Your task to perform on an android device: turn off picture-in-picture Image 0: 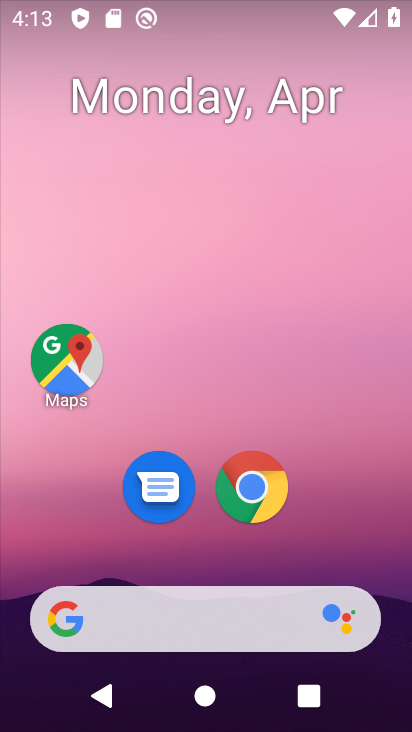
Step 0: drag from (365, 548) to (362, 85)
Your task to perform on an android device: turn off picture-in-picture Image 1: 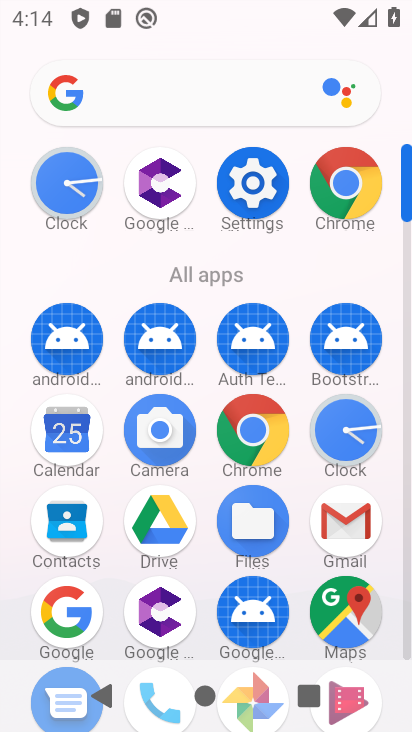
Step 1: click (254, 197)
Your task to perform on an android device: turn off picture-in-picture Image 2: 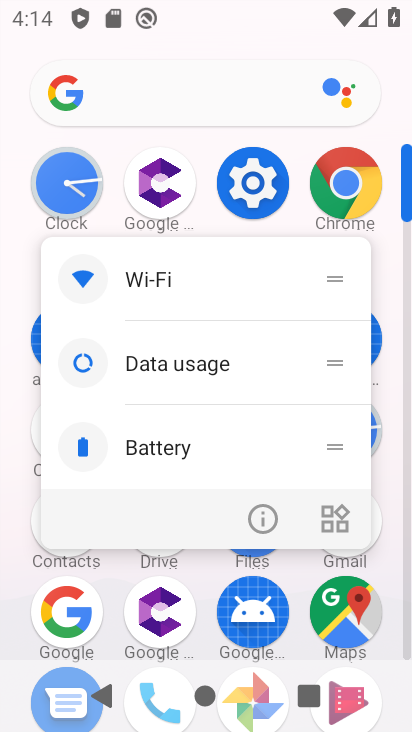
Step 2: click (235, 181)
Your task to perform on an android device: turn off picture-in-picture Image 3: 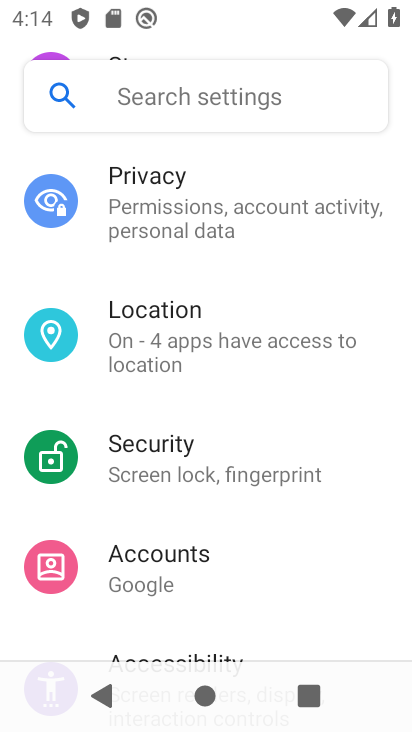
Step 3: drag from (358, 590) to (367, 411)
Your task to perform on an android device: turn off picture-in-picture Image 4: 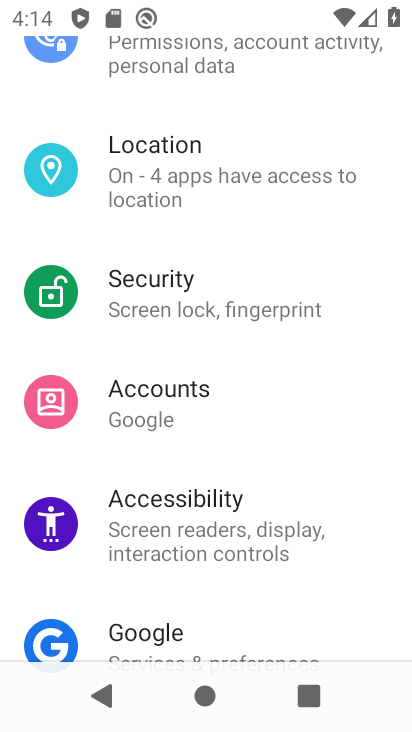
Step 4: drag from (359, 590) to (354, 385)
Your task to perform on an android device: turn off picture-in-picture Image 5: 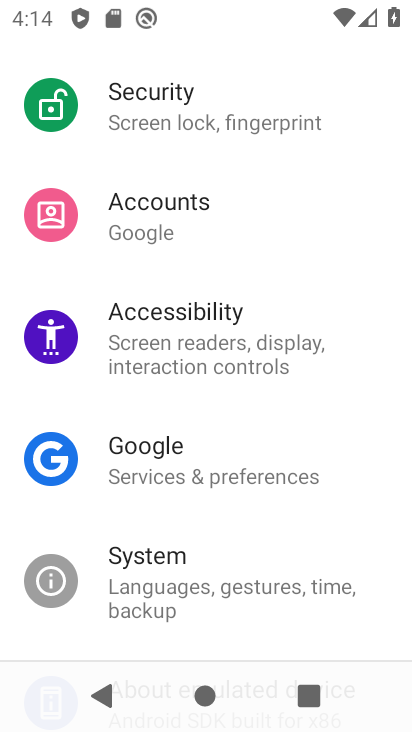
Step 5: drag from (355, 503) to (359, 390)
Your task to perform on an android device: turn off picture-in-picture Image 6: 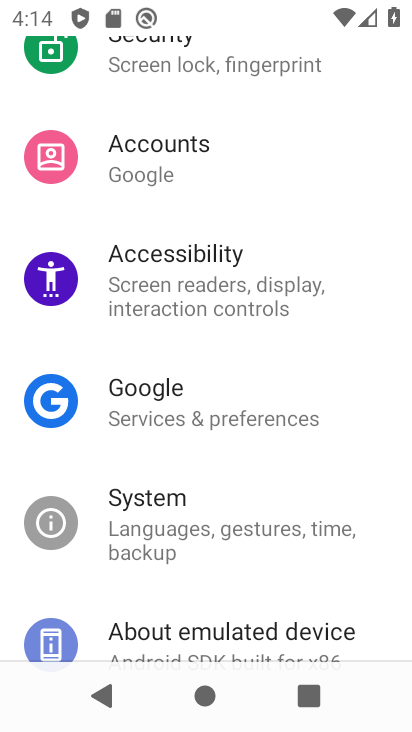
Step 6: drag from (379, 318) to (366, 467)
Your task to perform on an android device: turn off picture-in-picture Image 7: 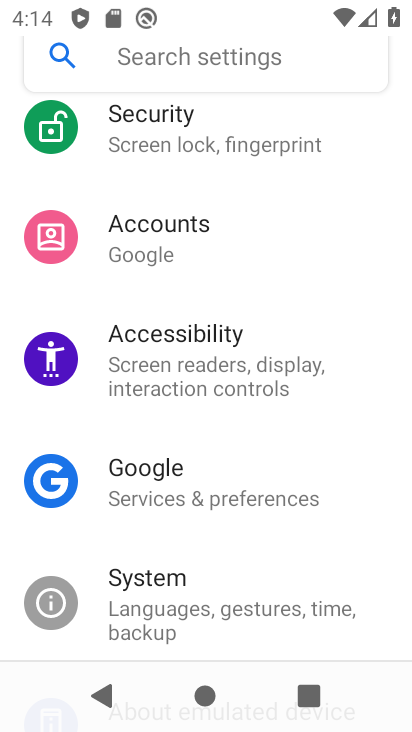
Step 7: drag from (366, 396) to (367, 482)
Your task to perform on an android device: turn off picture-in-picture Image 8: 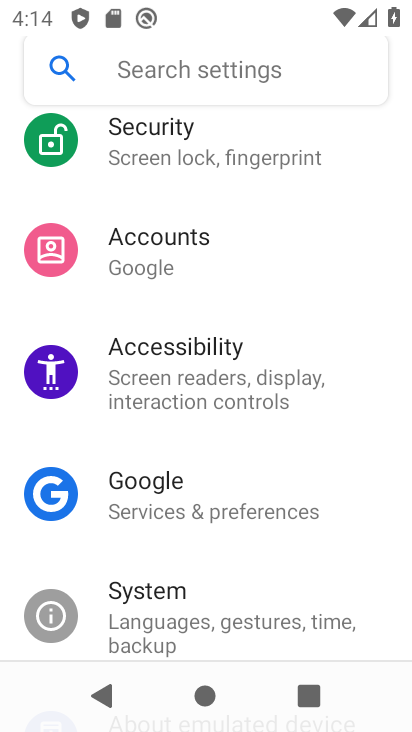
Step 8: drag from (364, 235) to (360, 490)
Your task to perform on an android device: turn off picture-in-picture Image 9: 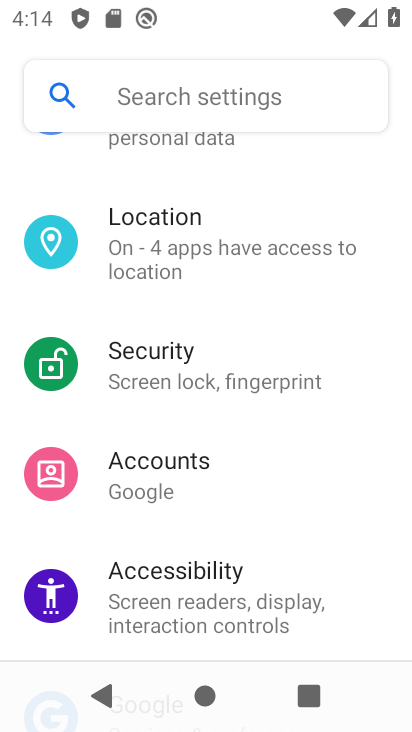
Step 9: drag from (361, 183) to (360, 459)
Your task to perform on an android device: turn off picture-in-picture Image 10: 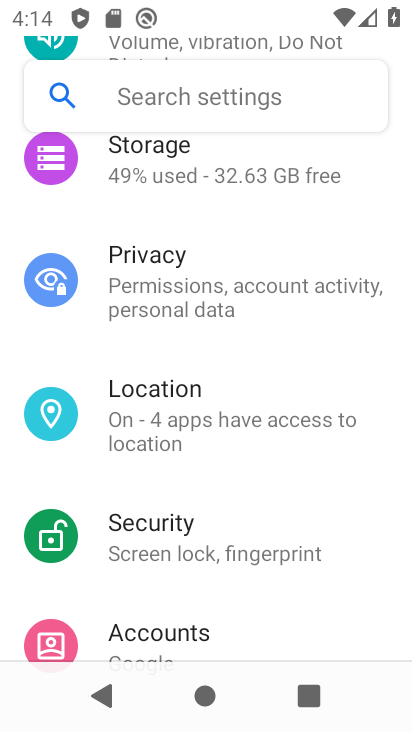
Step 10: drag from (372, 221) to (374, 479)
Your task to perform on an android device: turn off picture-in-picture Image 11: 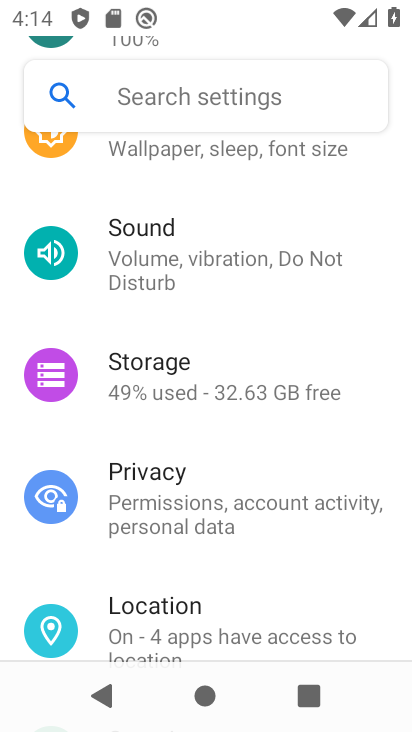
Step 11: drag from (380, 226) to (368, 437)
Your task to perform on an android device: turn off picture-in-picture Image 12: 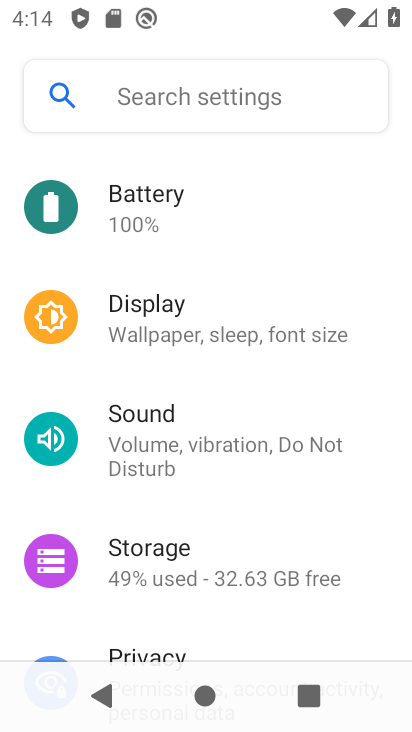
Step 12: drag from (375, 257) to (370, 421)
Your task to perform on an android device: turn off picture-in-picture Image 13: 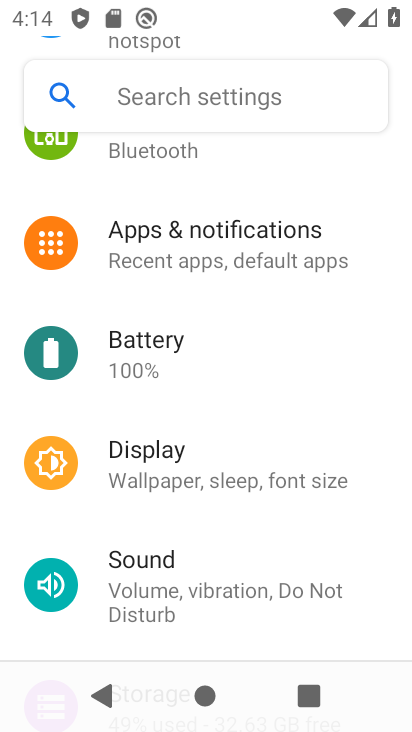
Step 13: drag from (370, 324) to (371, 407)
Your task to perform on an android device: turn off picture-in-picture Image 14: 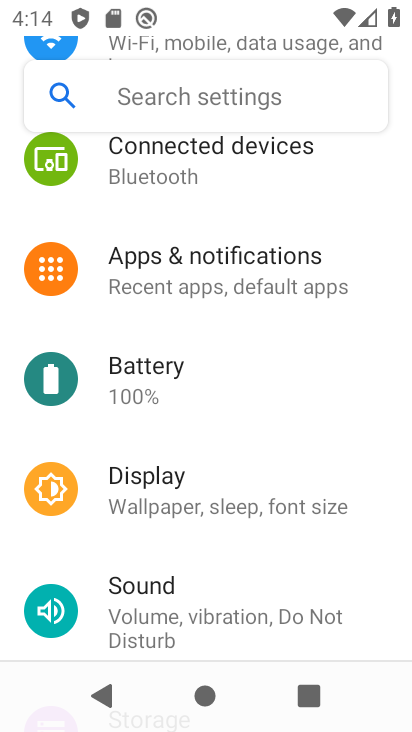
Step 14: click (288, 264)
Your task to perform on an android device: turn off picture-in-picture Image 15: 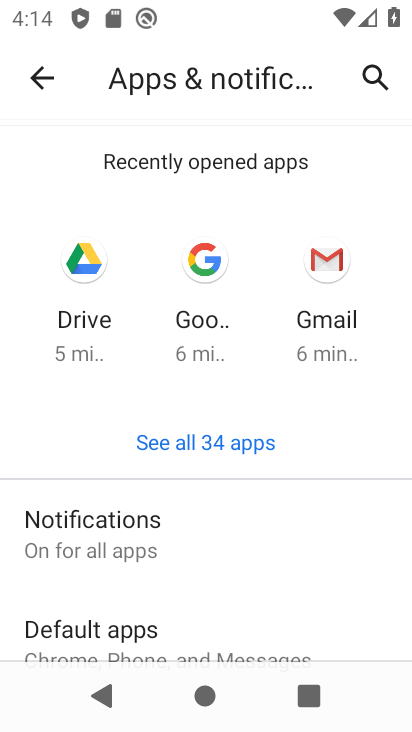
Step 15: drag from (246, 537) to (246, 215)
Your task to perform on an android device: turn off picture-in-picture Image 16: 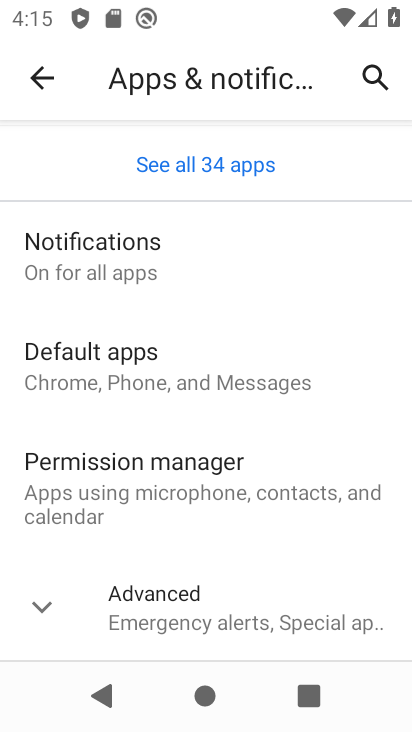
Step 16: click (249, 609)
Your task to perform on an android device: turn off picture-in-picture Image 17: 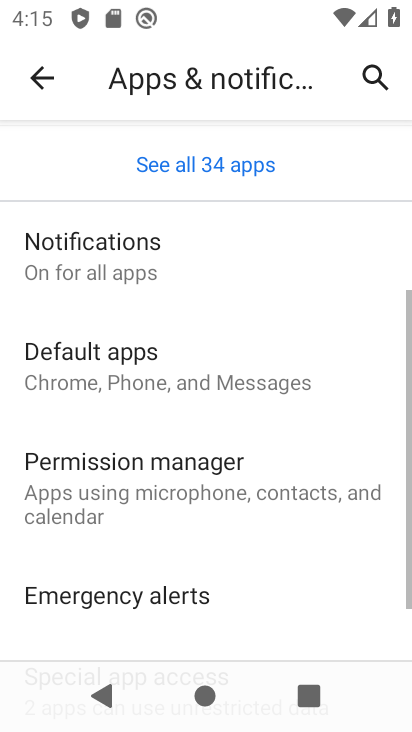
Step 17: drag from (253, 580) to (258, 223)
Your task to perform on an android device: turn off picture-in-picture Image 18: 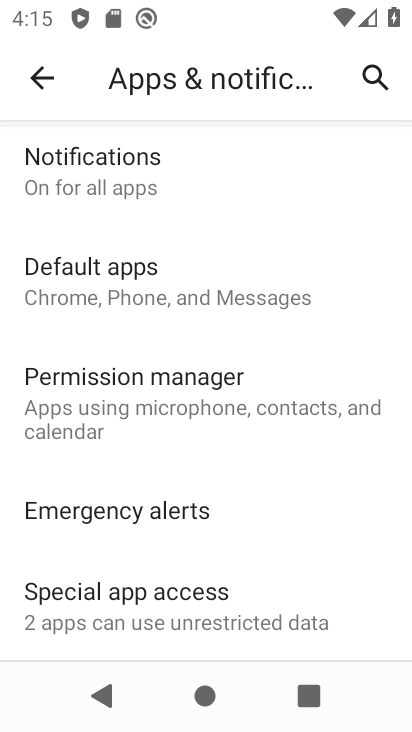
Step 18: click (250, 619)
Your task to perform on an android device: turn off picture-in-picture Image 19: 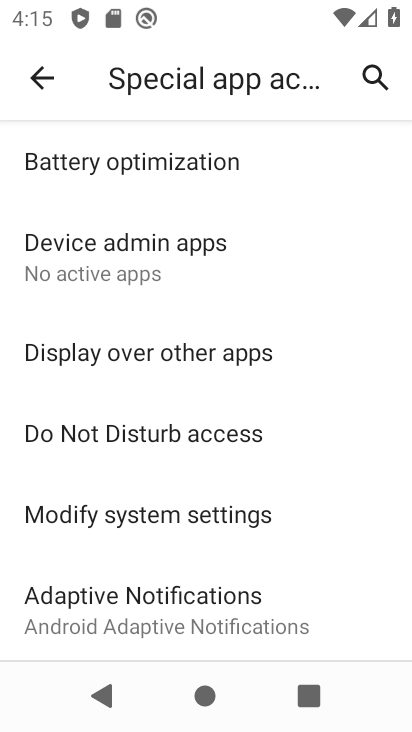
Step 19: drag from (326, 559) to (336, 268)
Your task to perform on an android device: turn off picture-in-picture Image 20: 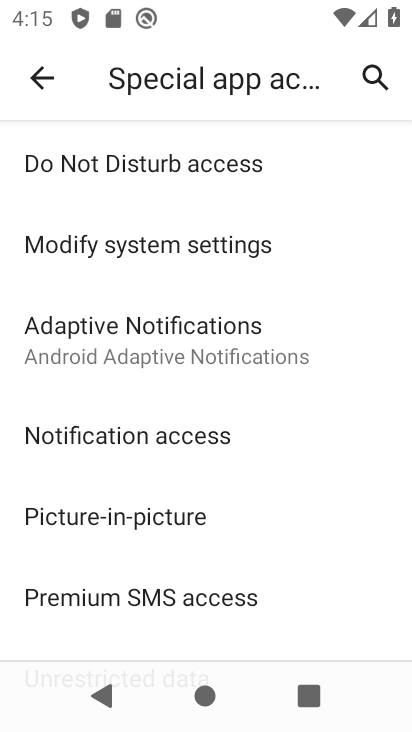
Step 20: click (195, 528)
Your task to perform on an android device: turn off picture-in-picture Image 21: 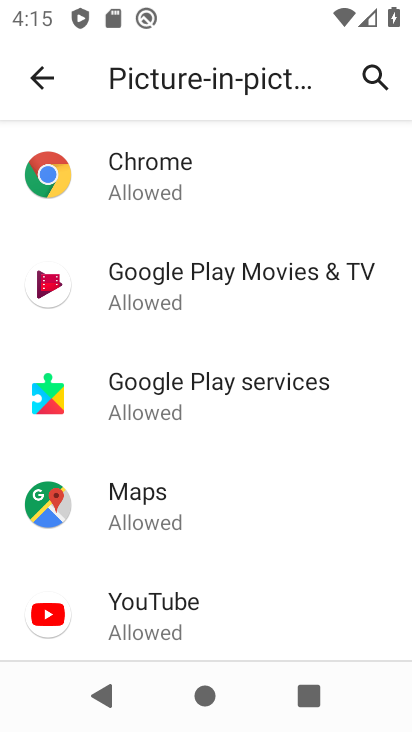
Step 21: click (185, 603)
Your task to perform on an android device: turn off picture-in-picture Image 22: 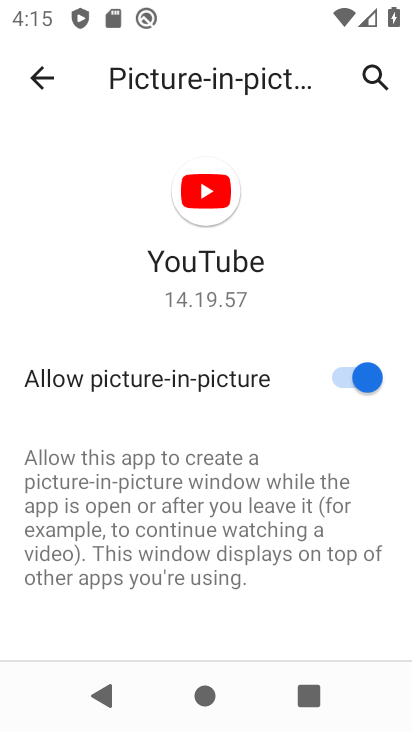
Step 22: click (352, 379)
Your task to perform on an android device: turn off picture-in-picture Image 23: 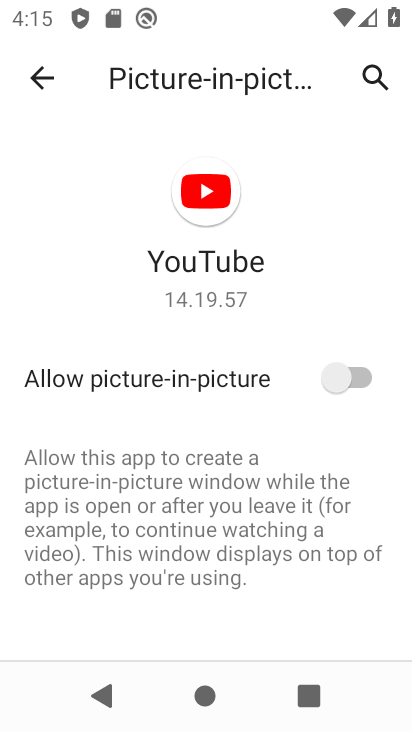
Step 23: task complete